Your task to perform on an android device: Search for "macbook air" on walmart.com, select the first entry, and add it to the cart. Image 0: 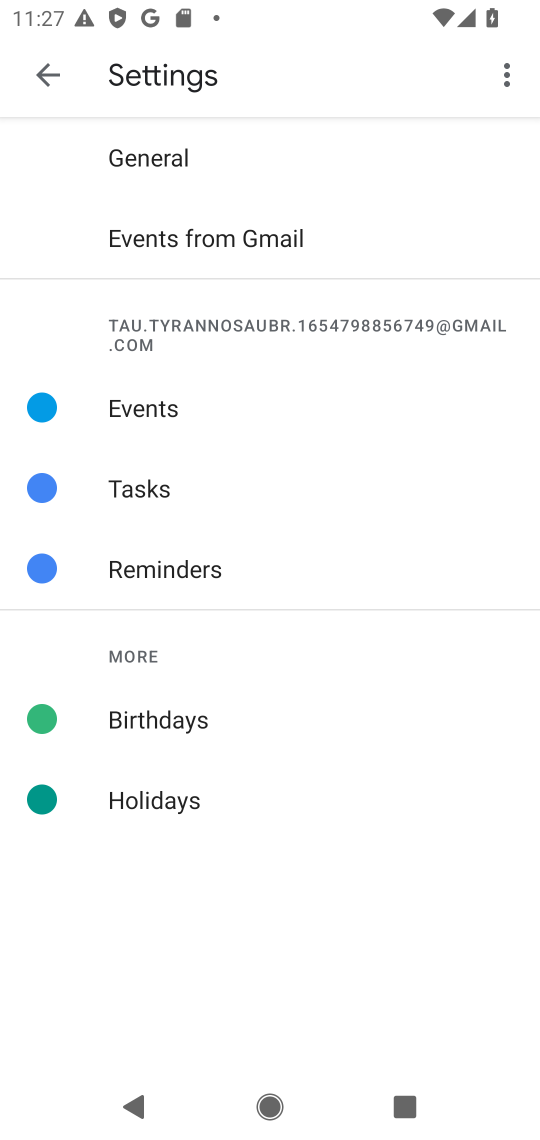
Step 0: press home button
Your task to perform on an android device: Search for "macbook air" on walmart.com, select the first entry, and add it to the cart. Image 1: 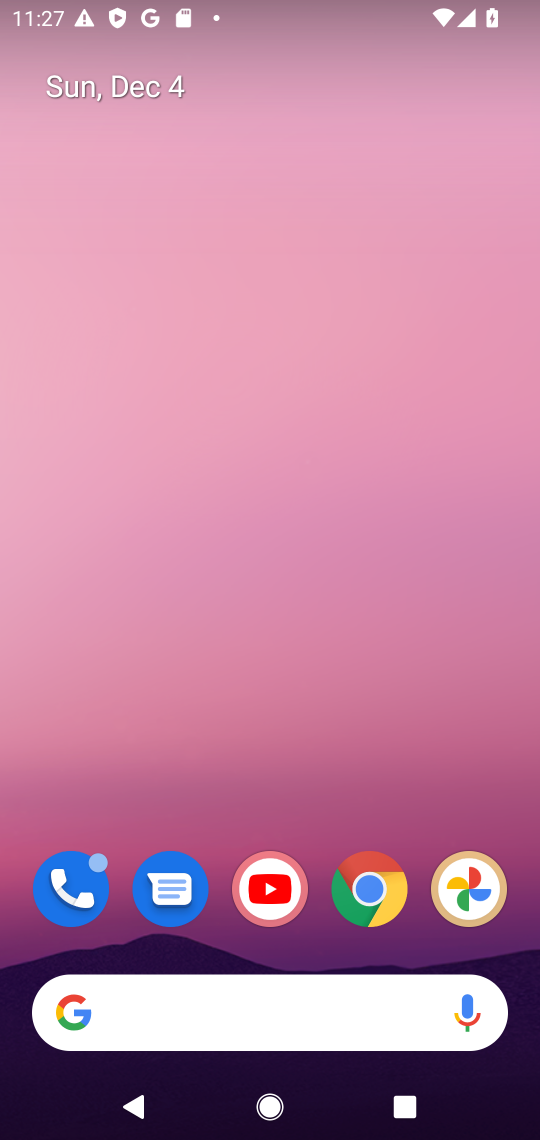
Step 1: click (366, 888)
Your task to perform on an android device: Search for "macbook air" on walmart.com, select the first entry, and add it to the cart. Image 2: 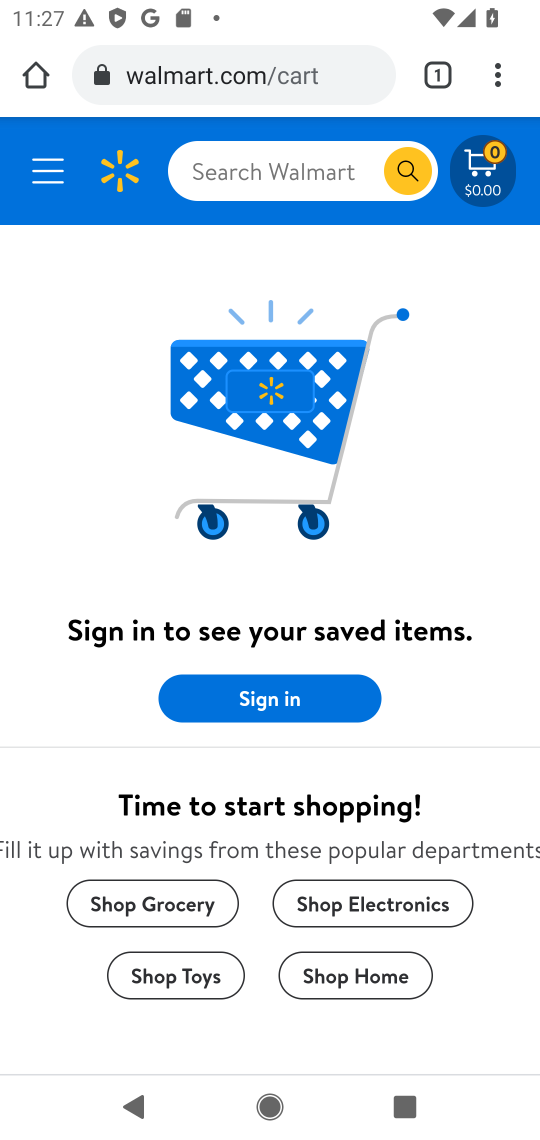
Step 2: click (345, 159)
Your task to perform on an android device: Search for "macbook air" on walmart.com, select the first entry, and add it to the cart. Image 3: 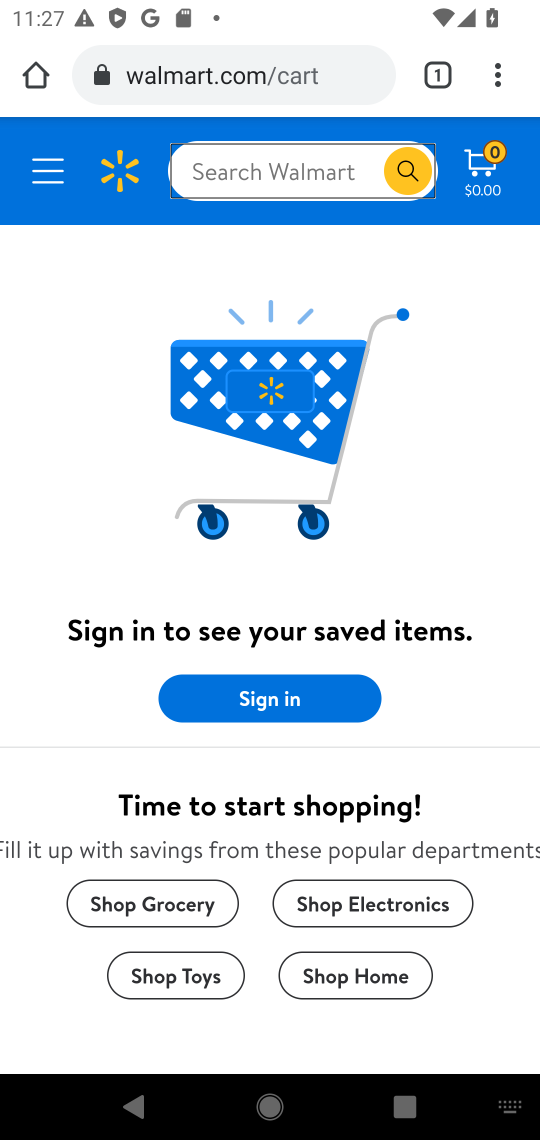
Step 3: press enter
Your task to perform on an android device: Search for "macbook air" on walmart.com, select the first entry, and add it to the cart. Image 4: 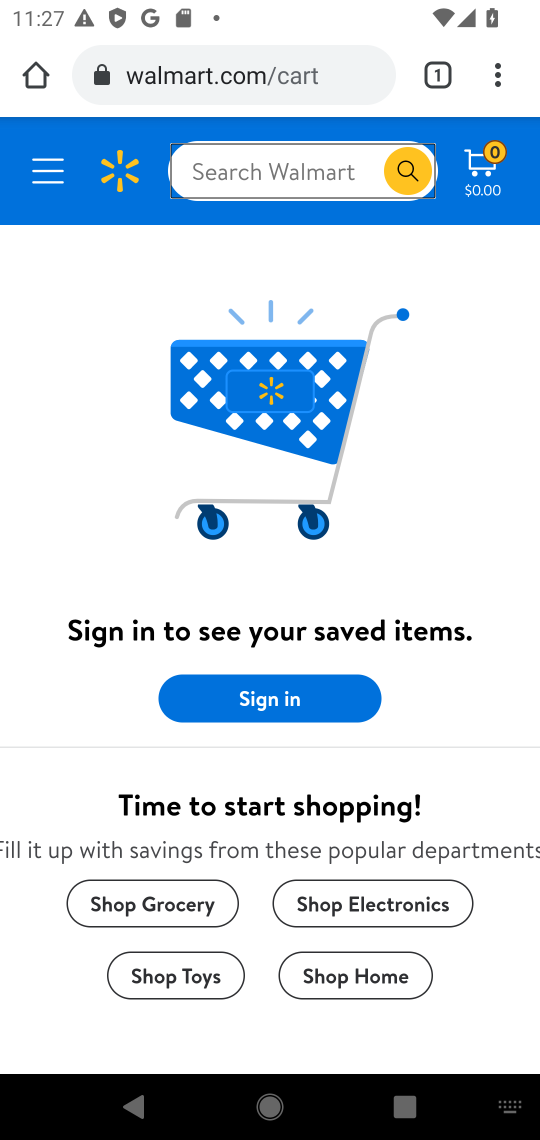
Step 4: type "macbook air"
Your task to perform on an android device: Search for "macbook air" on walmart.com, select the first entry, and add it to the cart. Image 5: 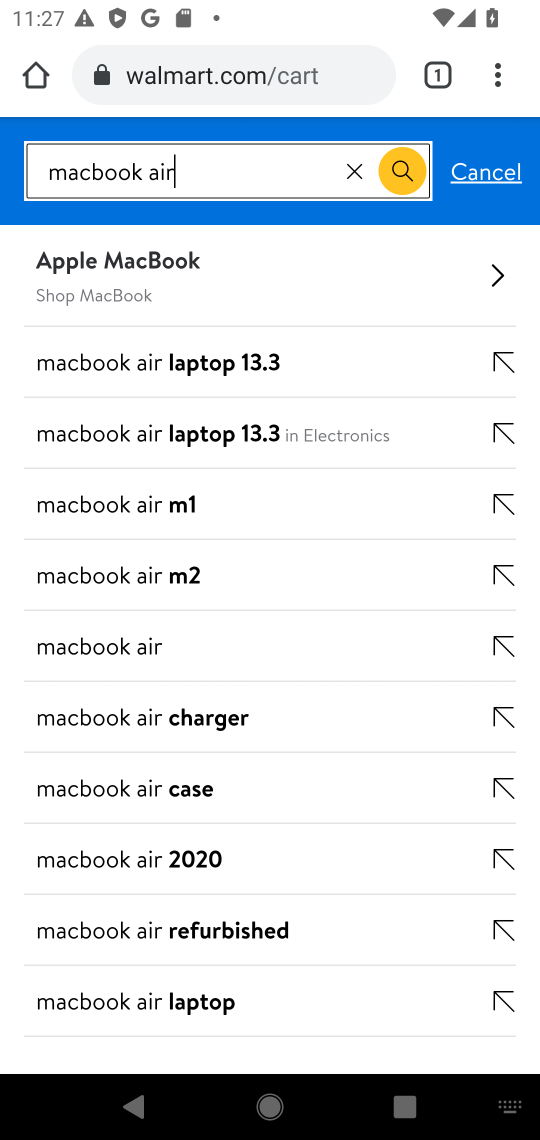
Step 5: click (147, 648)
Your task to perform on an android device: Search for "macbook air" on walmart.com, select the first entry, and add it to the cart. Image 6: 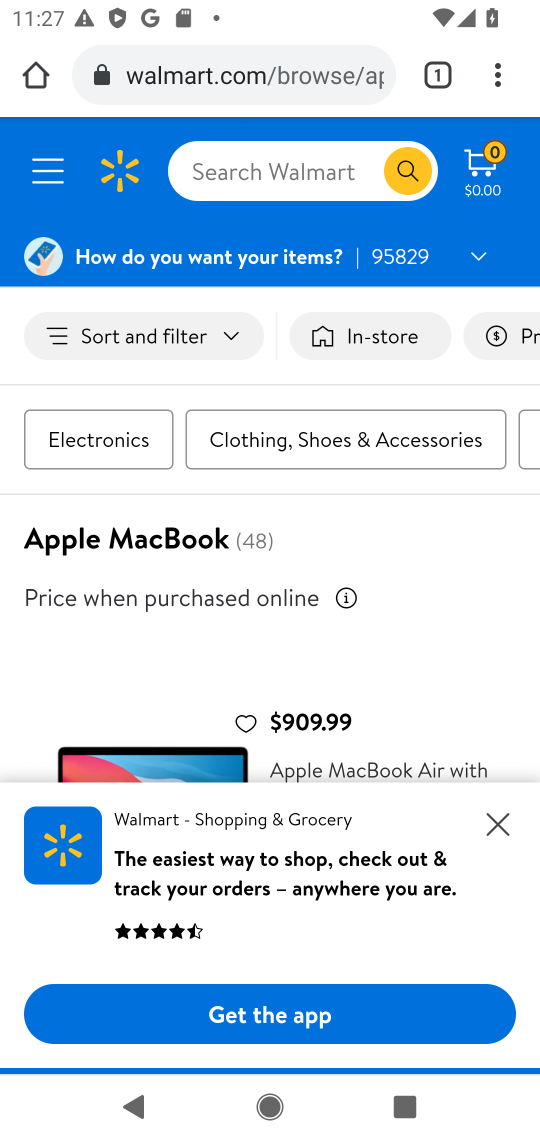
Step 6: click (490, 816)
Your task to perform on an android device: Search for "macbook air" on walmart.com, select the first entry, and add it to the cart. Image 7: 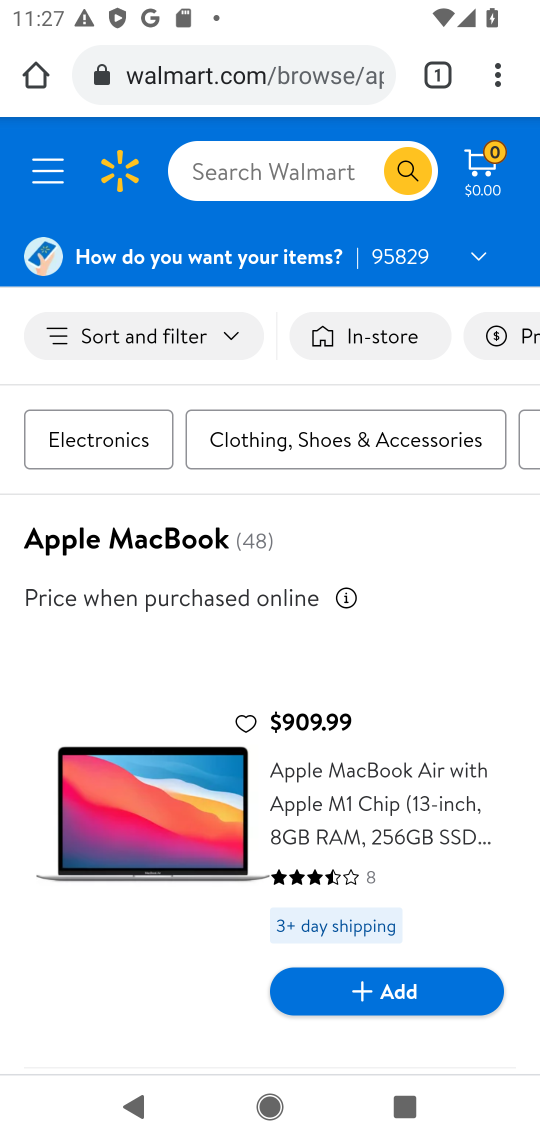
Step 7: drag from (440, 728) to (460, 348)
Your task to perform on an android device: Search for "macbook air" on walmart.com, select the first entry, and add it to the cart. Image 8: 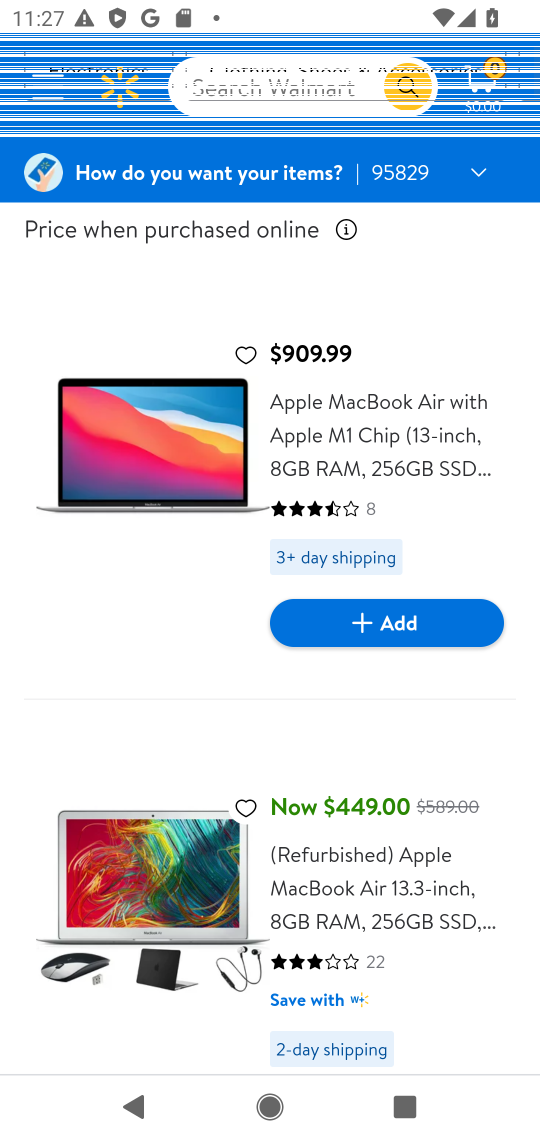
Step 8: click (158, 419)
Your task to perform on an android device: Search for "macbook air" on walmart.com, select the first entry, and add it to the cart. Image 9: 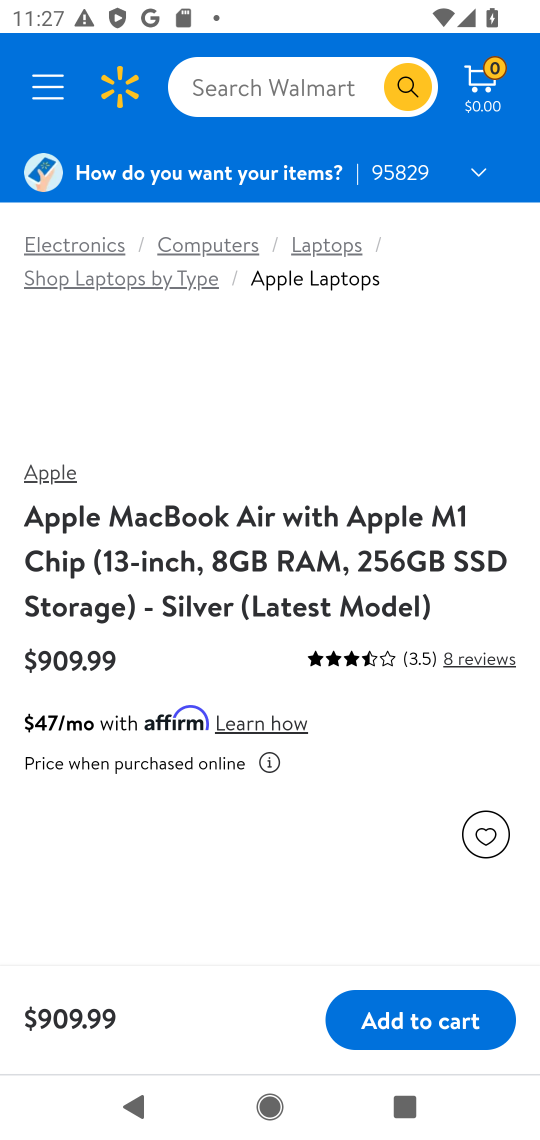
Step 9: click (461, 1024)
Your task to perform on an android device: Search for "macbook air" on walmart.com, select the first entry, and add it to the cart. Image 10: 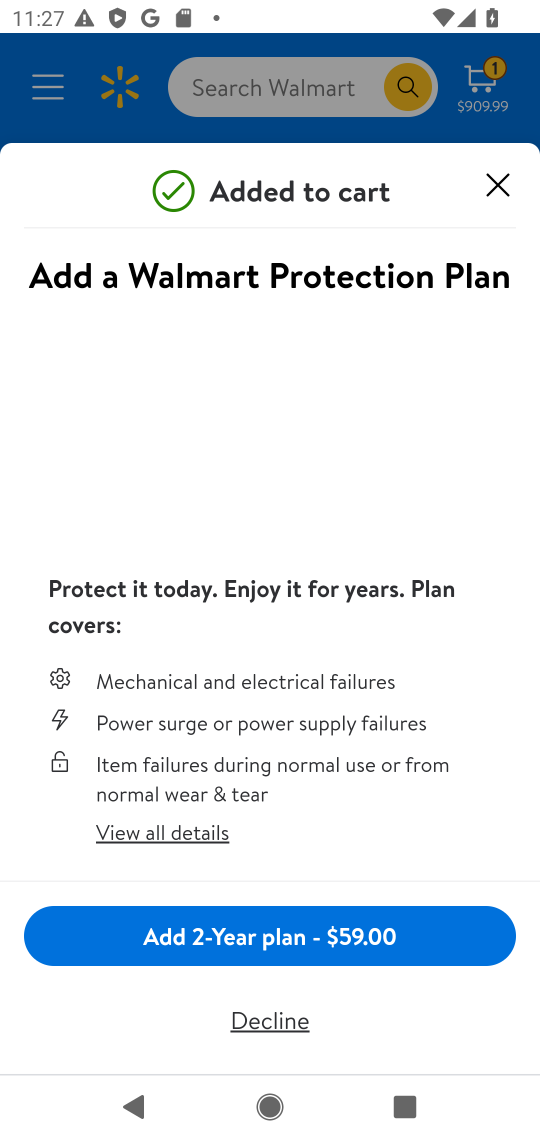
Step 10: click (493, 188)
Your task to perform on an android device: Search for "macbook air" on walmart.com, select the first entry, and add it to the cart. Image 11: 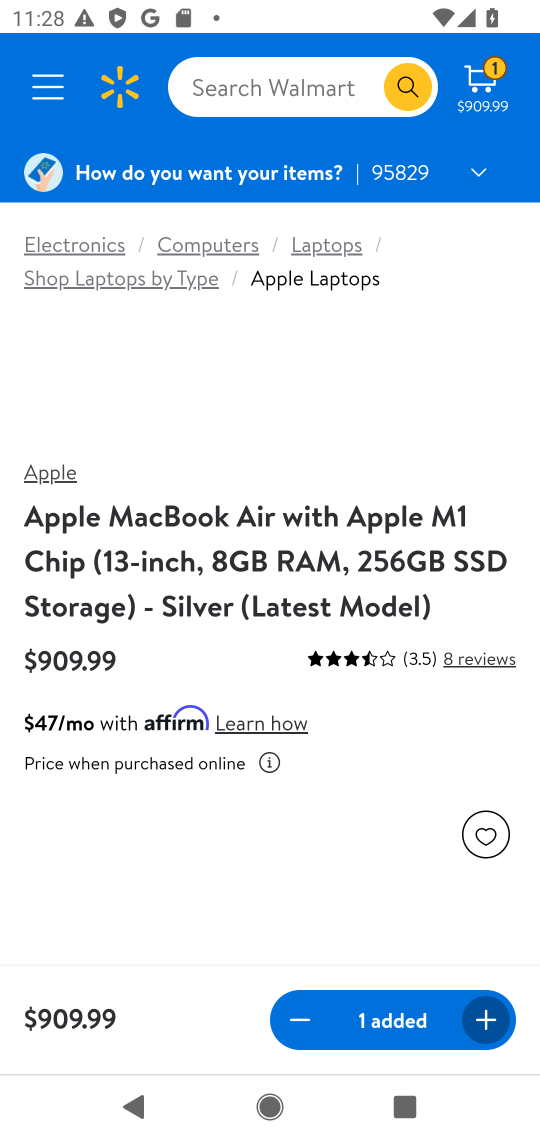
Step 11: task complete